Your task to perform on an android device: turn notification dots on Image 0: 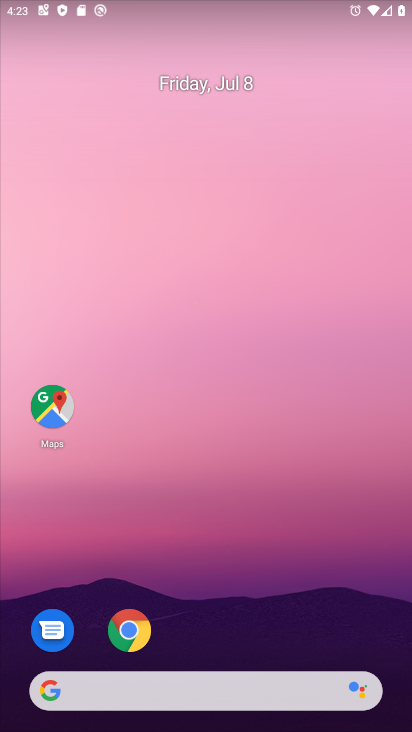
Step 0: drag from (206, 702) to (255, 183)
Your task to perform on an android device: turn notification dots on Image 1: 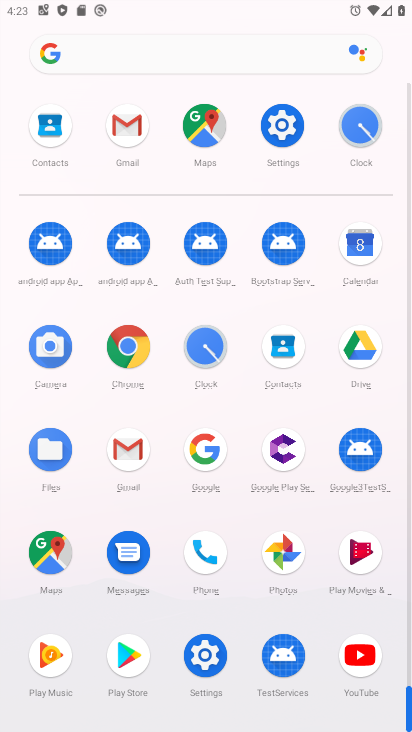
Step 1: click (281, 123)
Your task to perform on an android device: turn notification dots on Image 2: 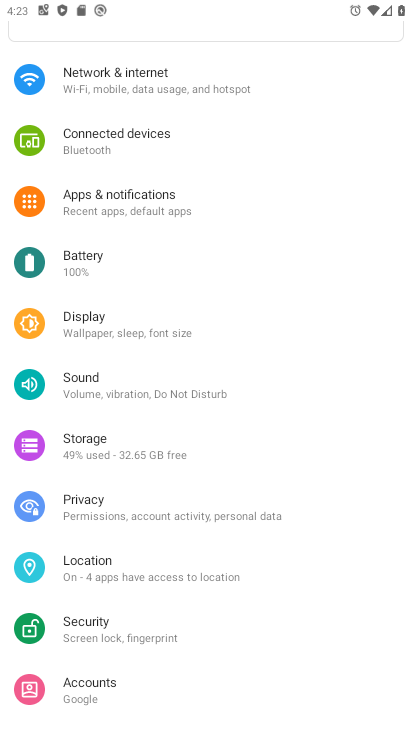
Step 2: click (111, 195)
Your task to perform on an android device: turn notification dots on Image 3: 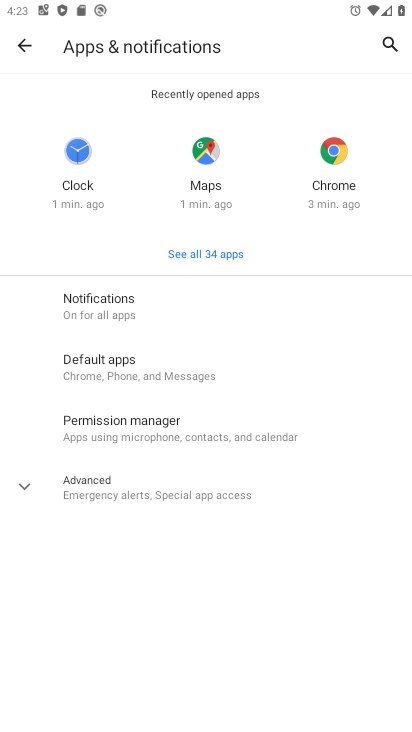
Step 3: click (97, 296)
Your task to perform on an android device: turn notification dots on Image 4: 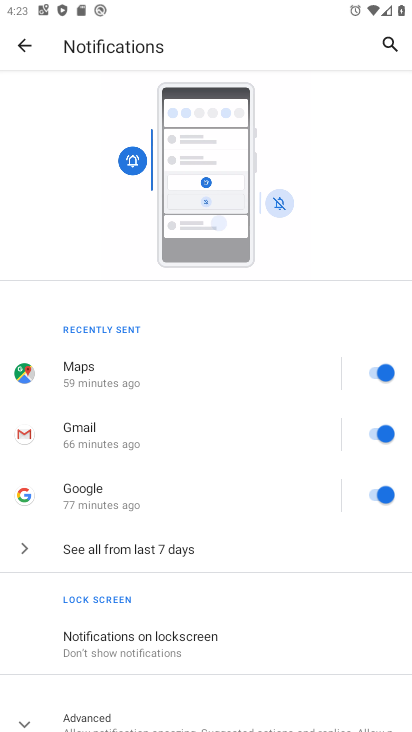
Step 4: drag from (131, 685) to (217, 539)
Your task to perform on an android device: turn notification dots on Image 5: 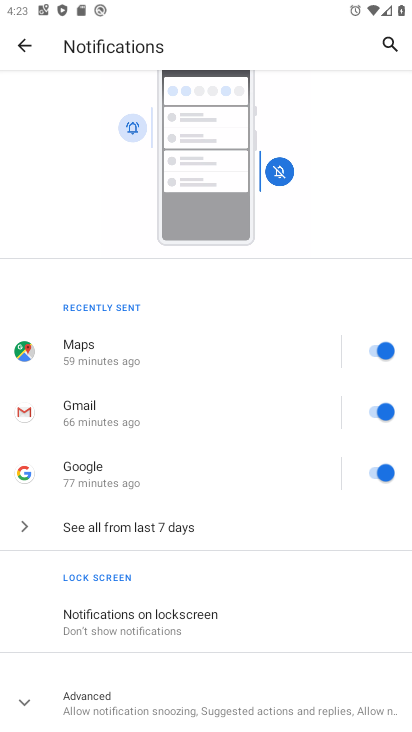
Step 5: click (215, 711)
Your task to perform on an android device: turn notification dots on Image 6: 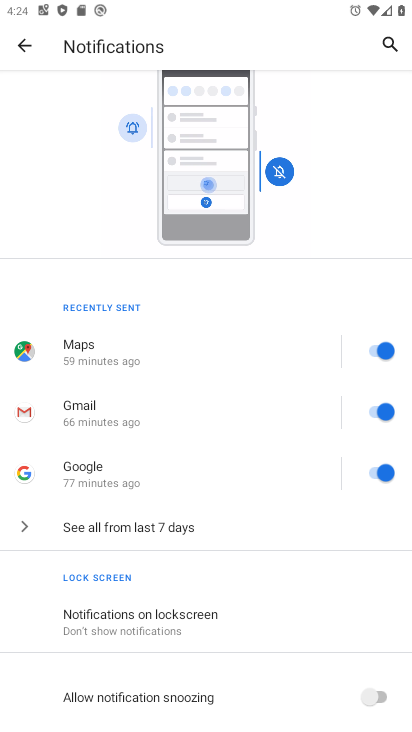
Step 6: drag from (157, 597) to (278, 451)
Your task to perform on an android device: turn notification dots on Image 7: 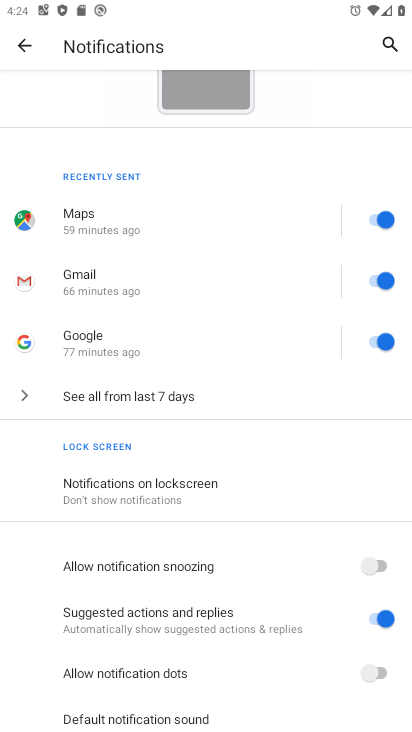
Step 7: drag from (189, 657) to (292, 552)
Your task to perform on an android device: turn notification dots on Image 8: 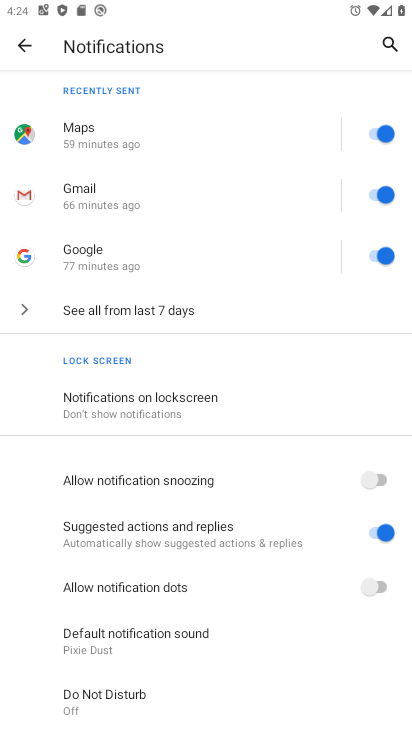
Step 8: click (382, 578)
Your task to perform on an android device: turn notification dots on Image 9: 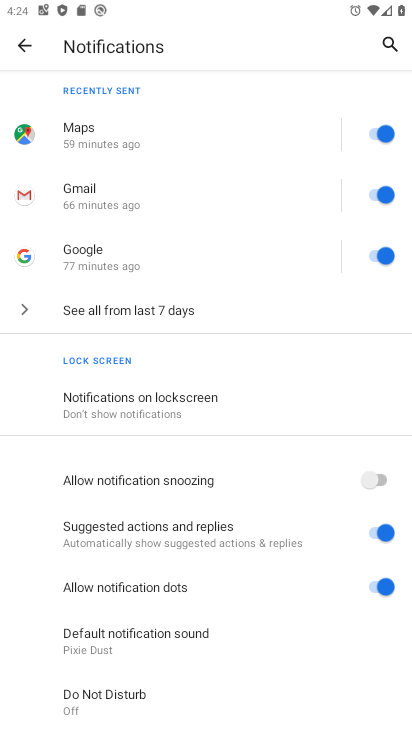
Step 9: task complete